Your task to perform on an android device: refresh tabs in the chrome app Image 0: 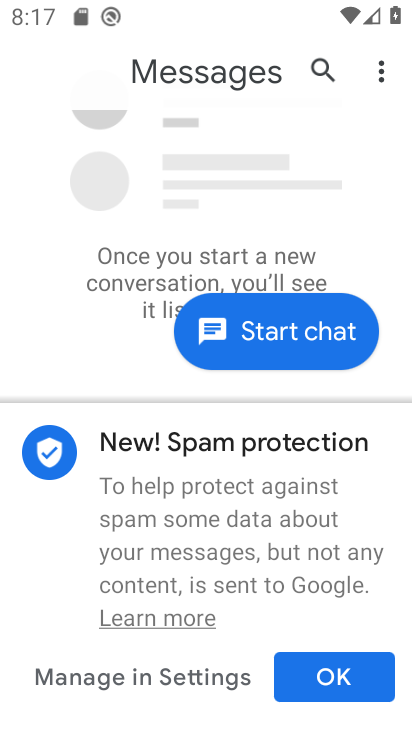
Step 0: press home button
Your task to perform on an android device: refresh tabs in the chrome app Image 1: 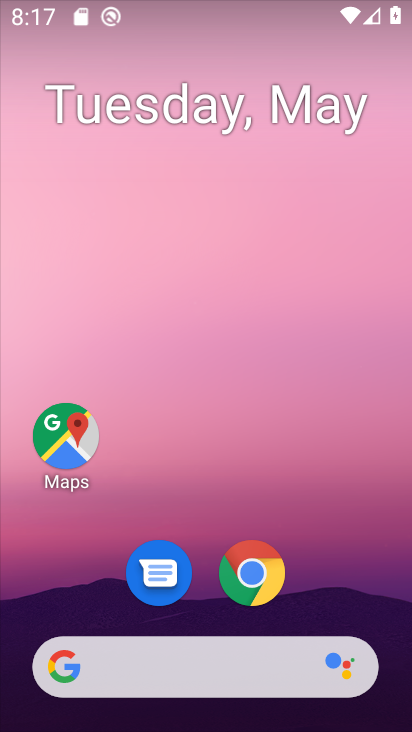
Step 1: drag from (393, 648) to (392, 172)
Your task to perform on an android device: refresh tabs in the chrome app Image 2: 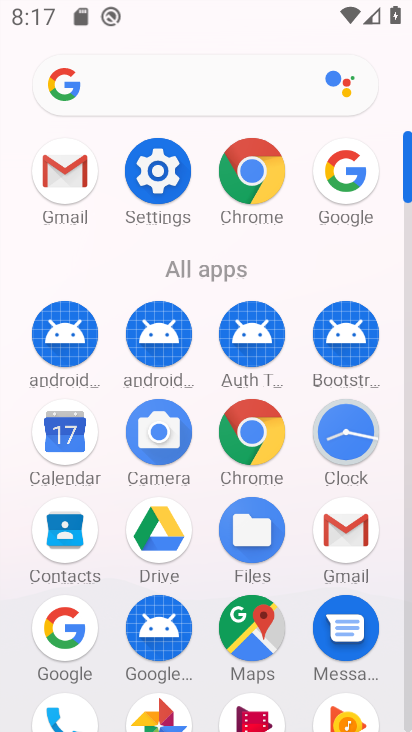
Step 2: click (246, 161)
Your task to perform on an android device: refresh tabs in the chrome app Image 3: 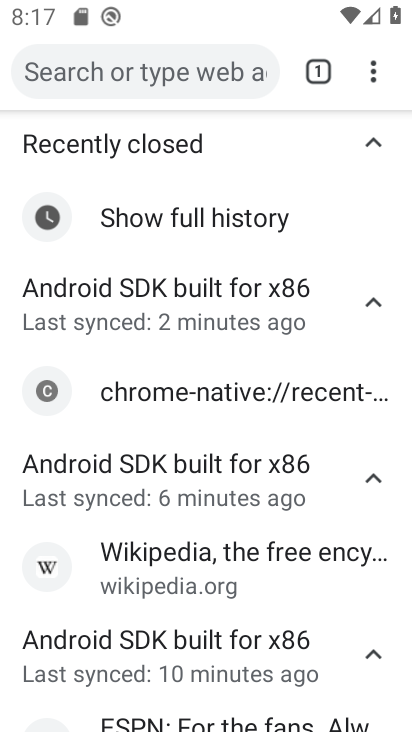
Step 3: click (369, 67)
Your task to perform on an android device: refresh tabs in the chrome app Image 4: 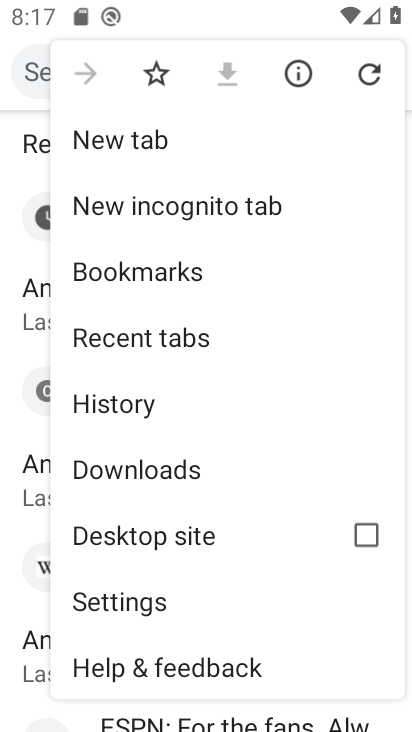
Step 4: drag from (253, 635) to (252, 351)
Your task to perform on an android device: refresh tabs in the chrome app Image 5: 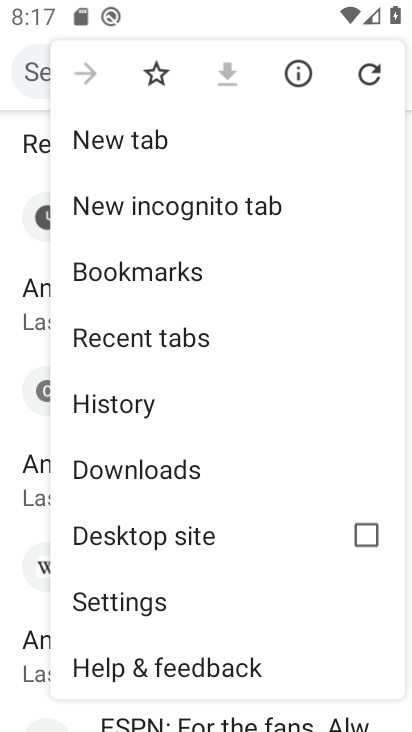
Step 5: click (369, 69)
Your task to perform on an android device: refresh tabs in the chrome app Image 6: 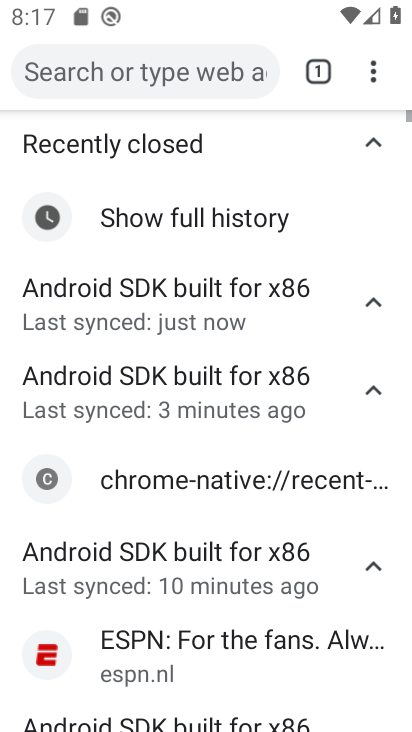
Step 6: task complete